Your task to perform on an android device: turn off priority inbox in the gmail app Image 0: 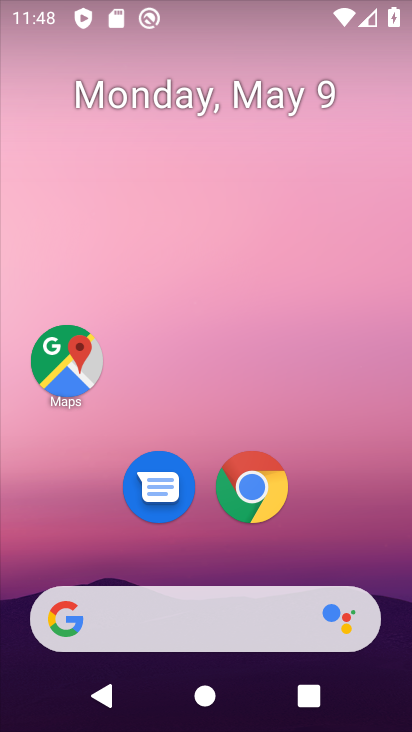
Step 0: drag from (342, 547) to (321, 198)
Your task to perform on an android device: turn off priority inbox in the gmail app Image 1: 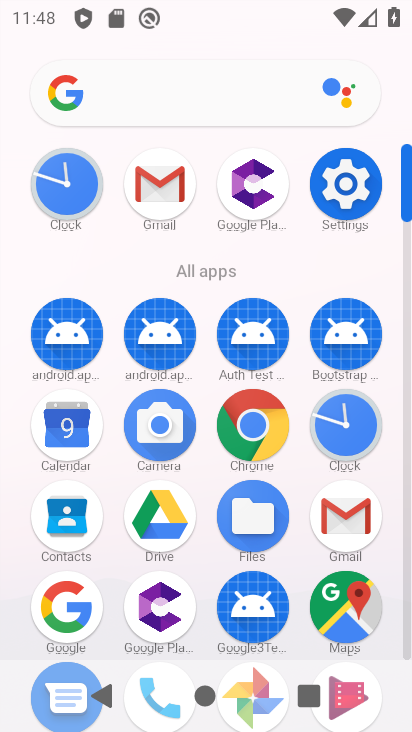
Step 1: click (350, 523)
Your task to perform on an android device: turn off priority inbox in the gmail app Image 2: 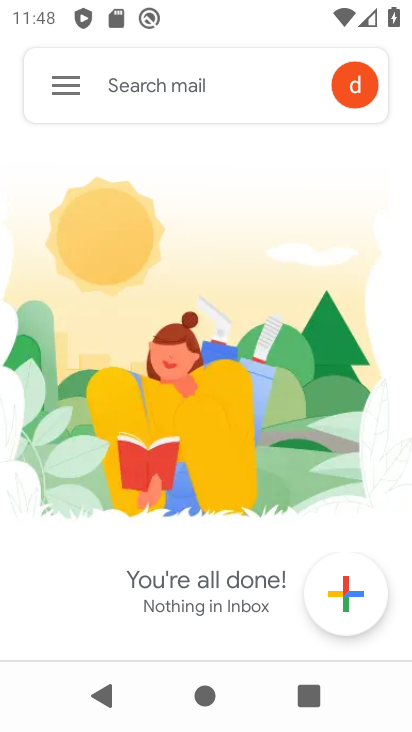
Step 2: click (69, 90)
Your task to perform on an android device: turn off priority inbox in the gmail app Image 3: 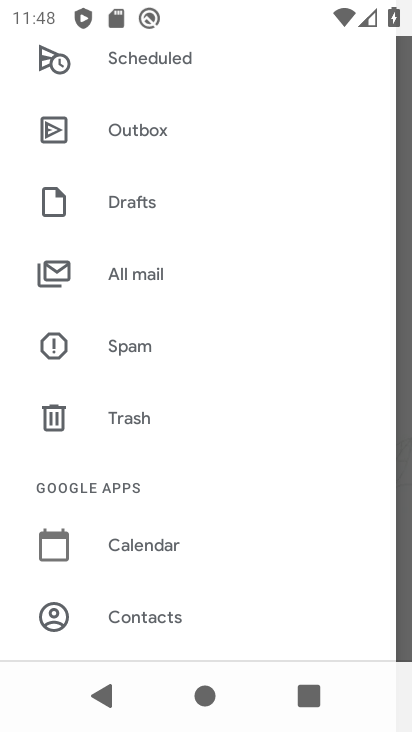
Step 3: drag from (161, 605) to (164, 334)
Your task to perform on an android device: turn off priority inbox in the gmail app Image 4: 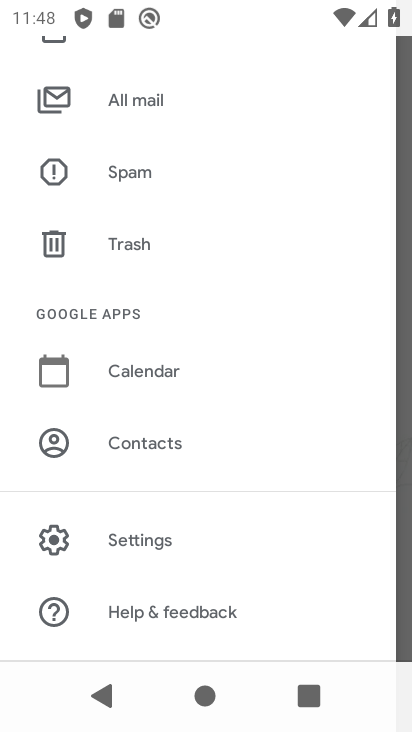
Step 4: click (190, 529)
Your task to perform on an android device: turn off priority inbox in the gmail app Image 5: 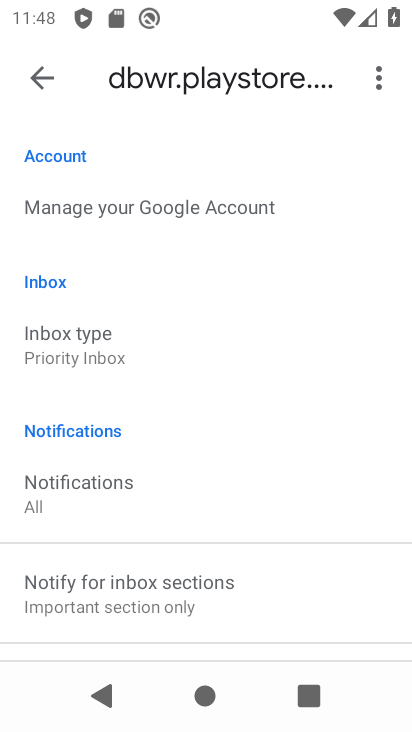
Step 5: click (236, 328)
Your task to perform on an android device: turn off priority inbox in the gmail app Image 6: 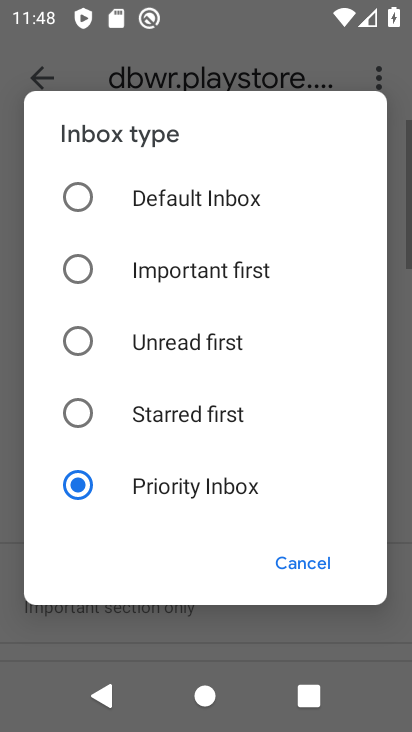
Step 6: click (178, 216)
Your task to perform on an android device: turn off priority inbox in the gmail app Image 7: 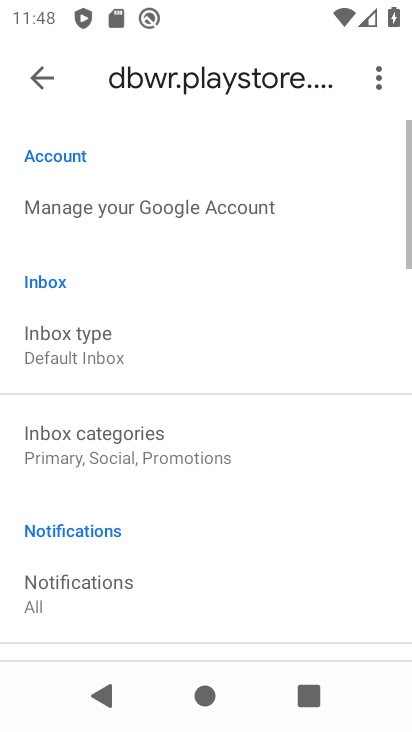
Step 7: task complete